Your task to perform on an android device: Turn on the flashlight Image 0: 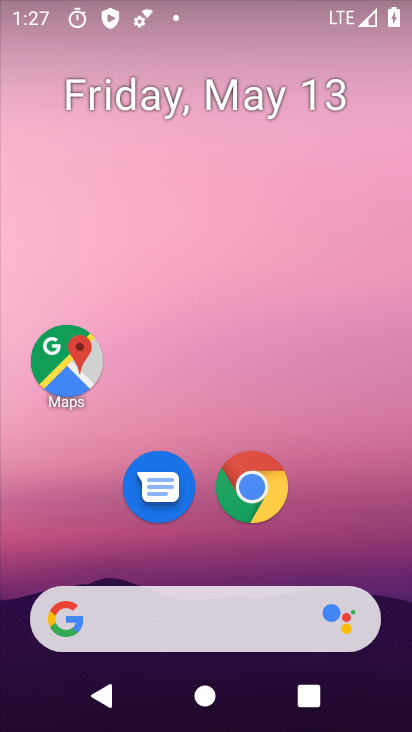
Step 0: drag from (319, 554) to (333, 260)
Your task to perform on an android device: Turn on the flashlight Image 1: 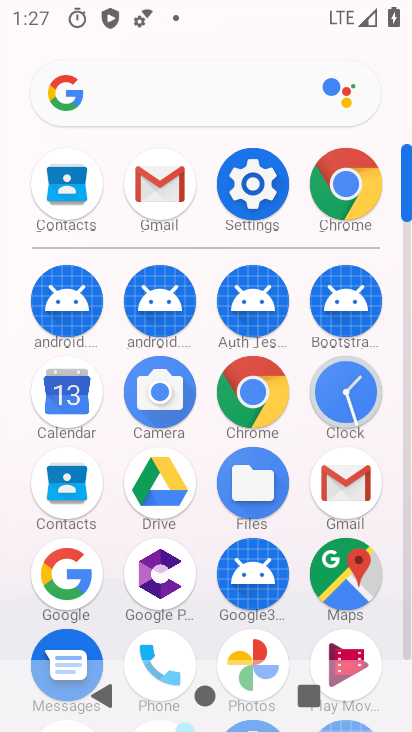
Step 1: click (253, 187)
Your task to perform on an android device: Turn on the flashlight Image 2: 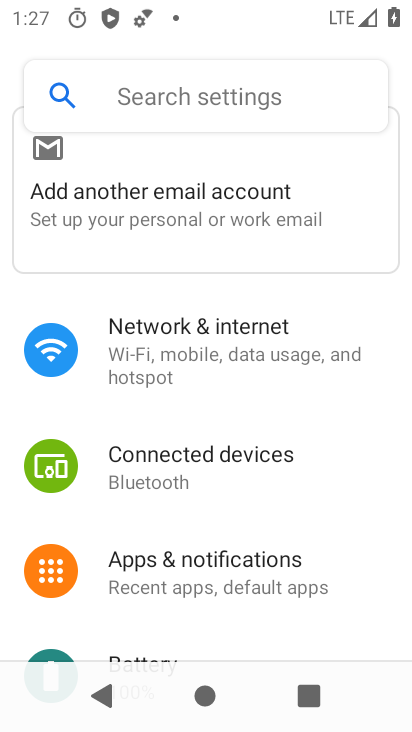
Step 2: click (139, 95)
Your task to perform on an android device: Turn on the flashlight Image 3: 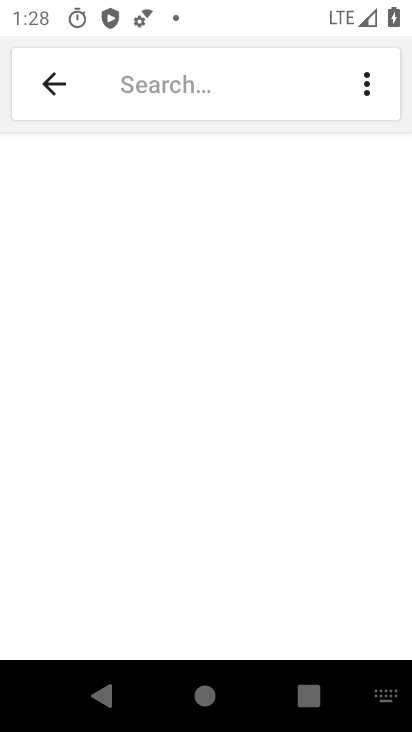
Step 3: type "flashlight"
Your task to perform on an android device: Turn on the flashlight Image 4: 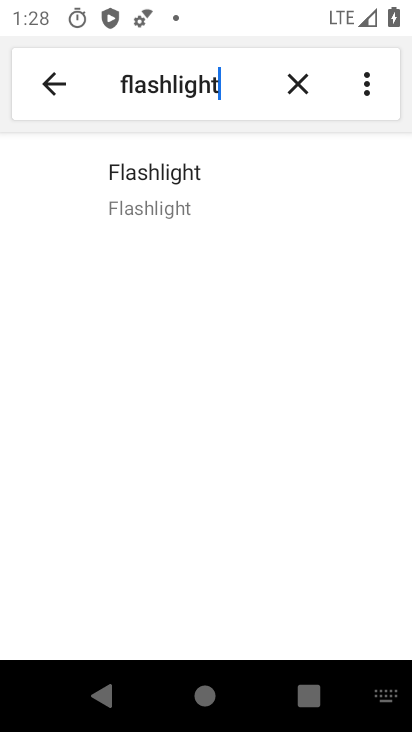
Step 4: click (187, 207)
Your task to perform on an android device: Turn on the flashlight Image 5: 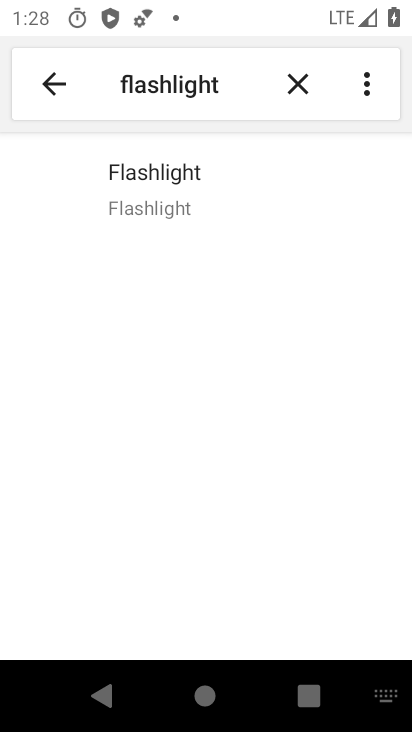
Step 5: task complete